Your task to perform on an android device: Go to settings Image 0: 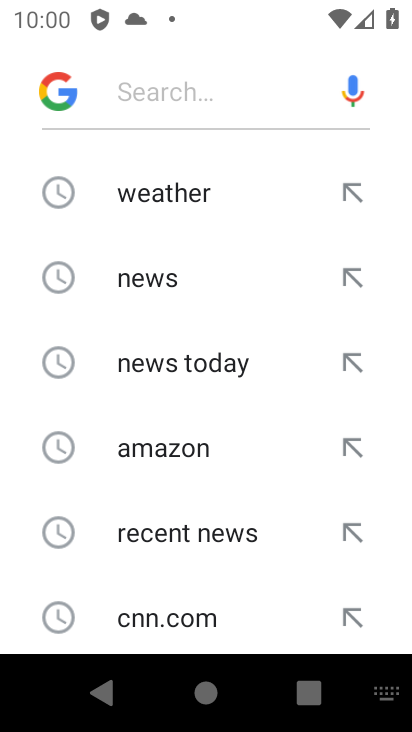
Step 0: press home button
Your task to perform on an android device: Go to settings Image 1: 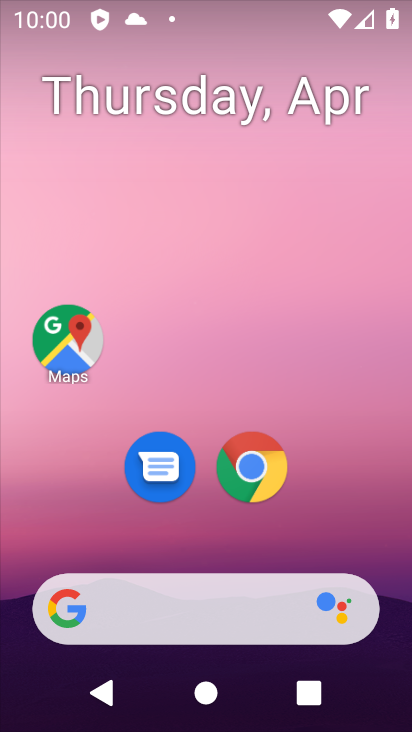
Step 1: drag from (356, 535) to (298, 292)
Your task to perform on an android device: Go to settings Image 2: 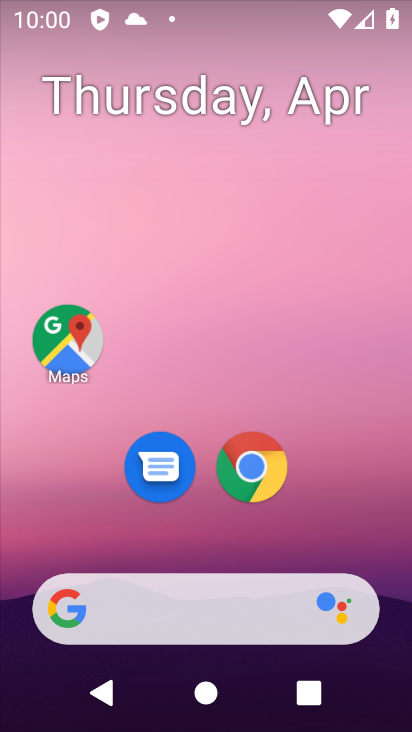
Step 2: drag from (392, 546) to (339, 127)
Your task to perform on an android device: Go to settings Image 3: 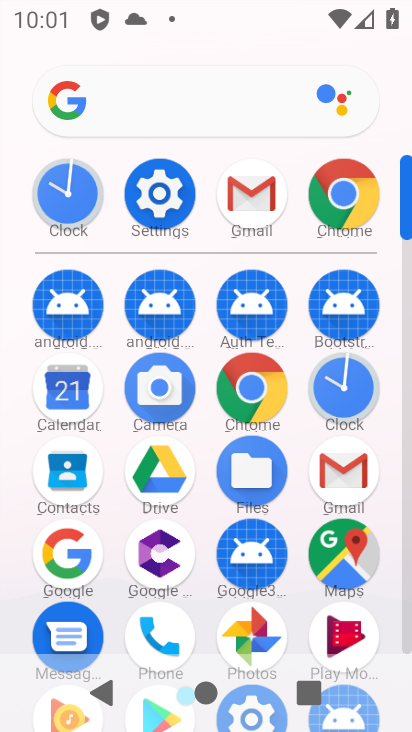
Step 3: click (166, 195)
Your task to perform on an android device: Go to settings Image 4: 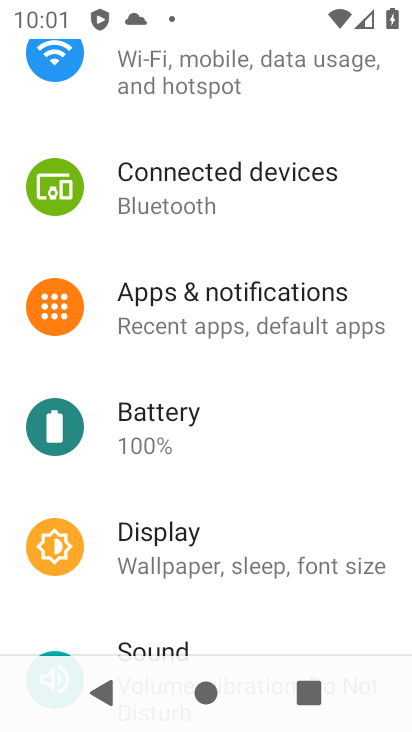
Step 4: task complete